Your task to perform on an android device: Go to notification settings Image 0: 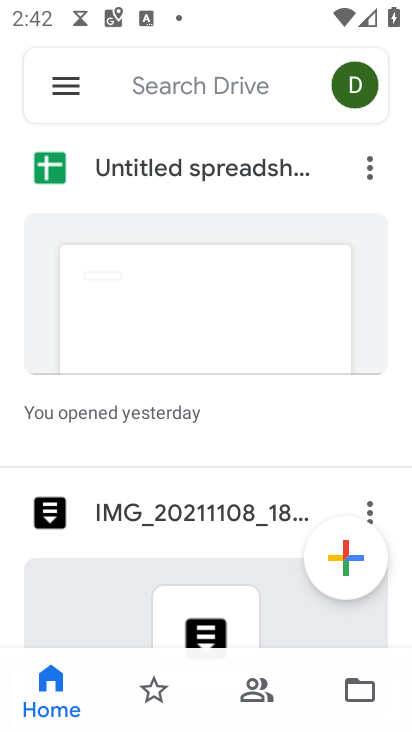
Step 0: press home button
Your task to perform on an android device: Go to notification settings Image 1: 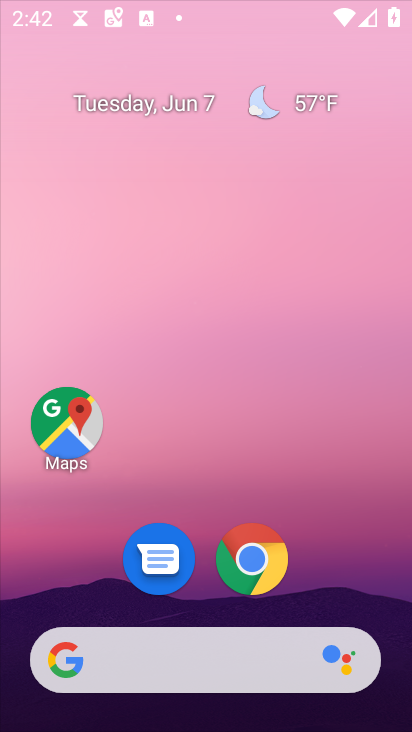
Step 1: drag from (79, 430) to (205, 96)
Your task to perform on an android device: Go to notification settings Image 2: 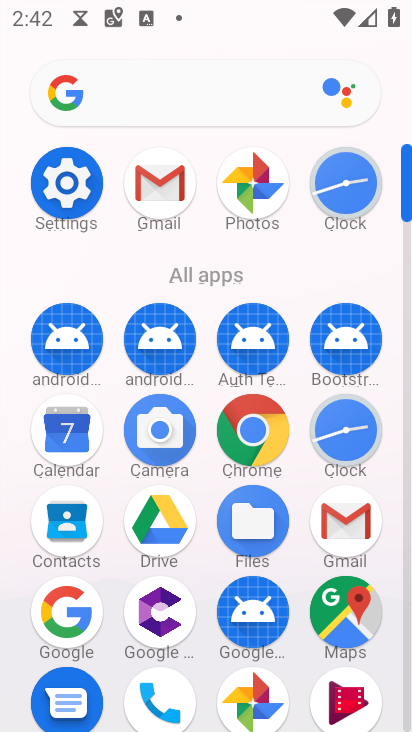
Step 2: click (50, 189)
Your task to perform on an android device: Go to notification settings Image 3: 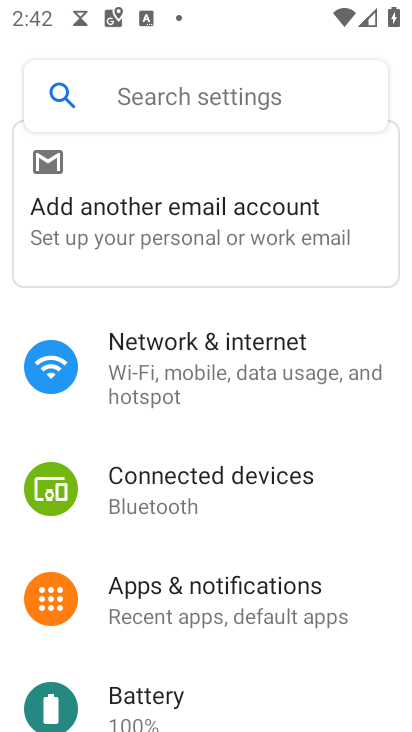
Step 3: click (223, 595)
Your task to perform on an android device: Go to notification settings Image 4: 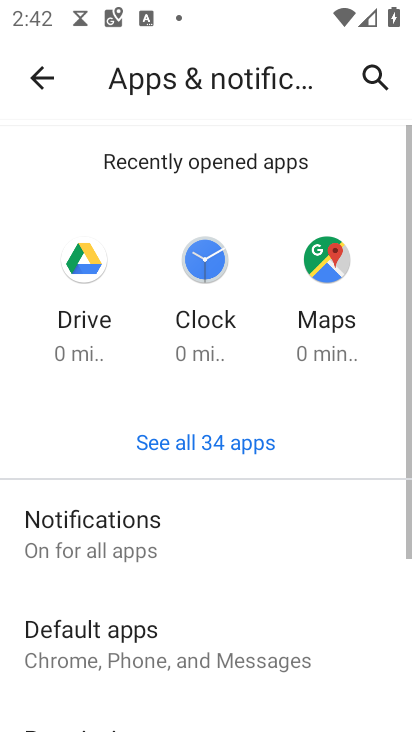
Step 4: task complete